Your task to perform on an android device: see tabs open on other devices in the chrome app Image 0: 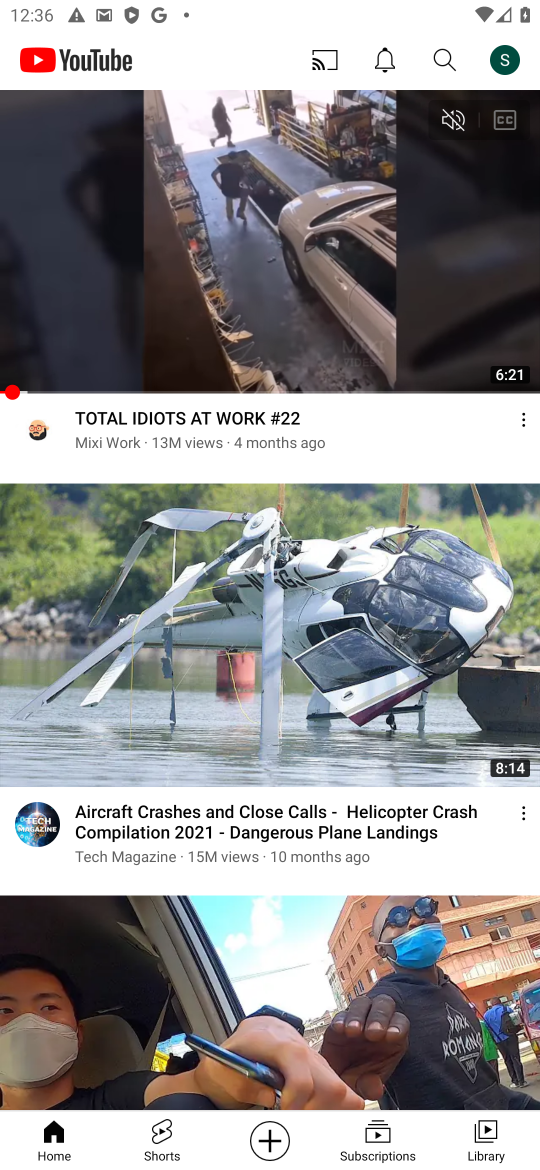
Step 0: press home button
Your task to perform on an android device: see tabs open on other devices in the chrome app Image 1: 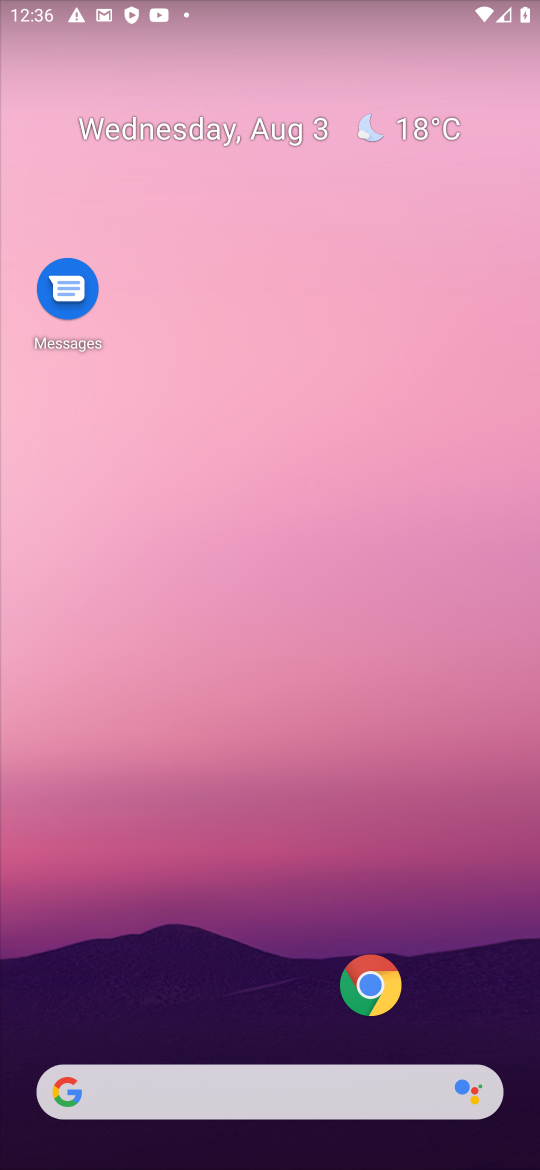
Step 1: click (345, 992)
Your task to perform on an android device: see tabs open on other devices in the chrome app Image 2: 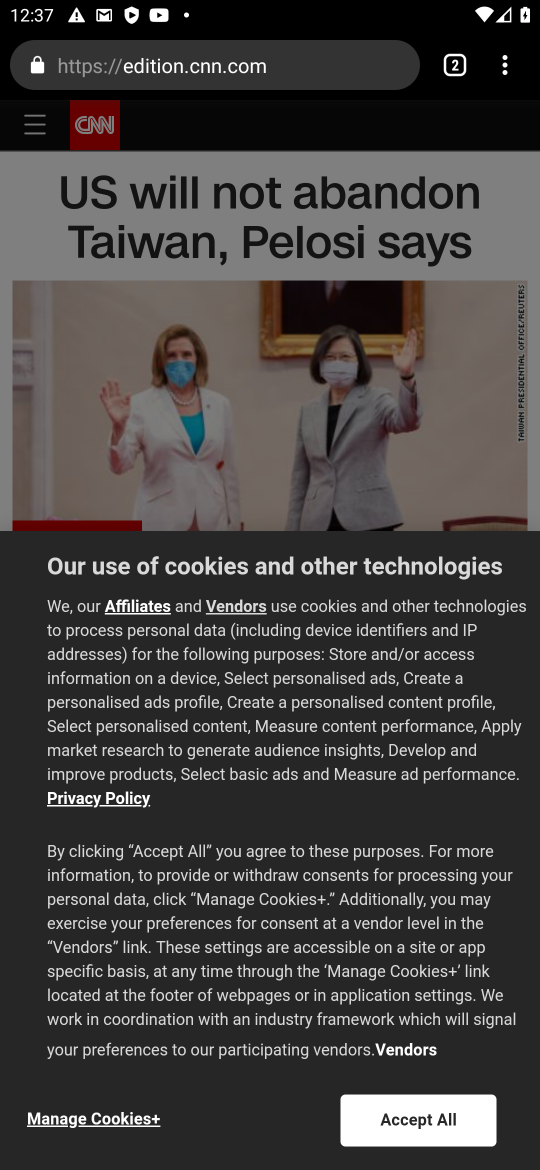
Step 2: task complete